Your task to perform on an android device: check android version Image 0: 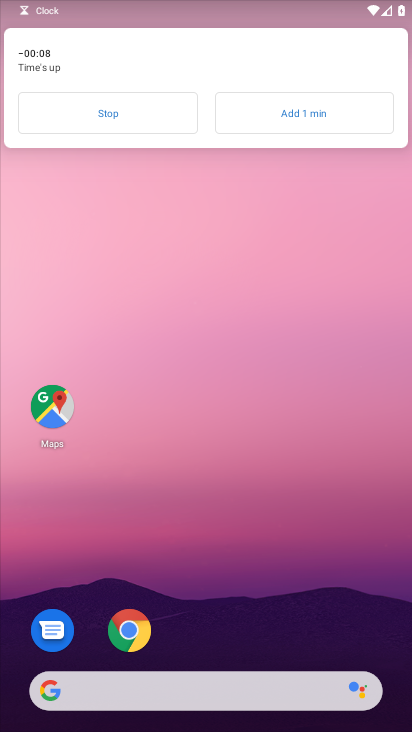
Step 0: drag from (182, 688) to (80, 16)
Your task to perform on an android device: check android version Image 1: 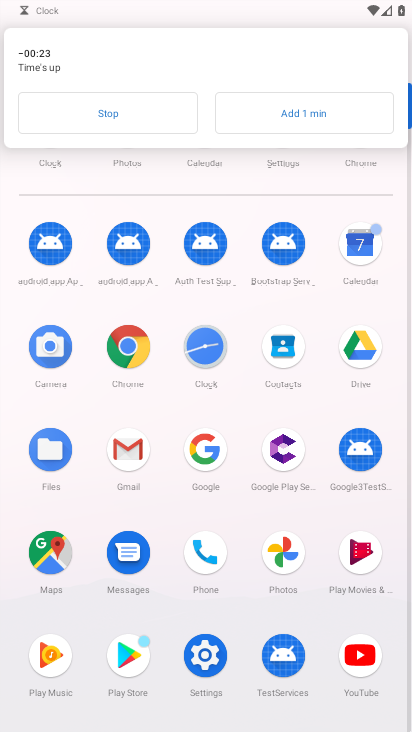
Step 1: click (214, 672)
Your task to perform on an android device: check android version Image 2: 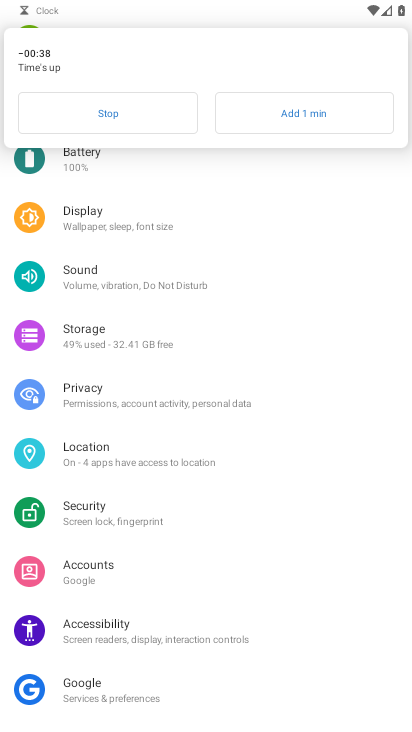
Step 2: drag from (164, 647) to (126, 7)
Your task to perform on an android device: check android version Image 3: 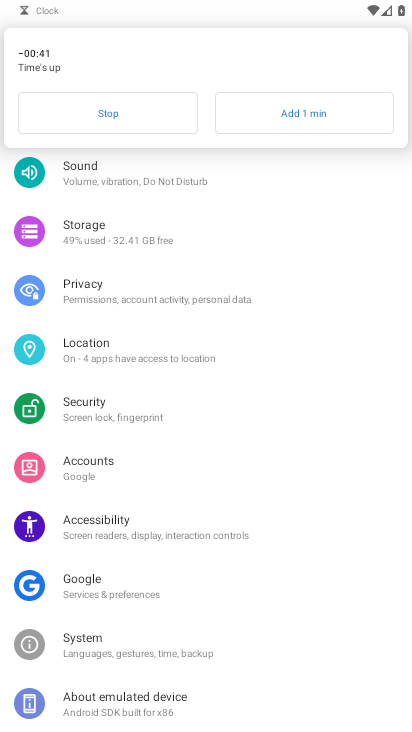
Step 3: click (88, 691)
Your task to perform on an android device: check android version Image 4: 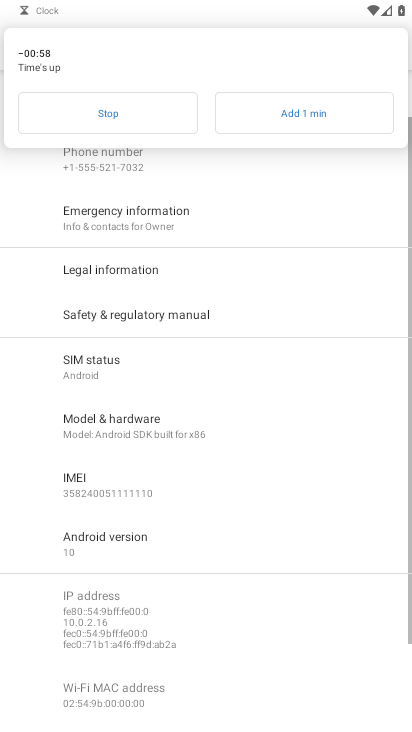
Step 4: click (101, 533)
Your task to perform on an android device: check android version Image 5: 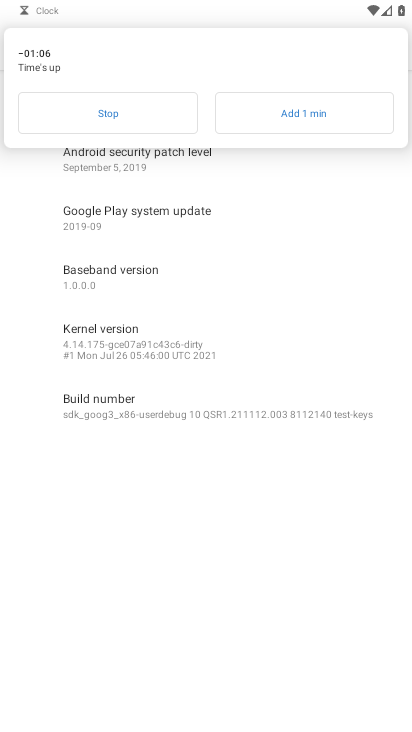
Step 5: click (131, 116)
Your task to perform on an android device: check android version Image 6: 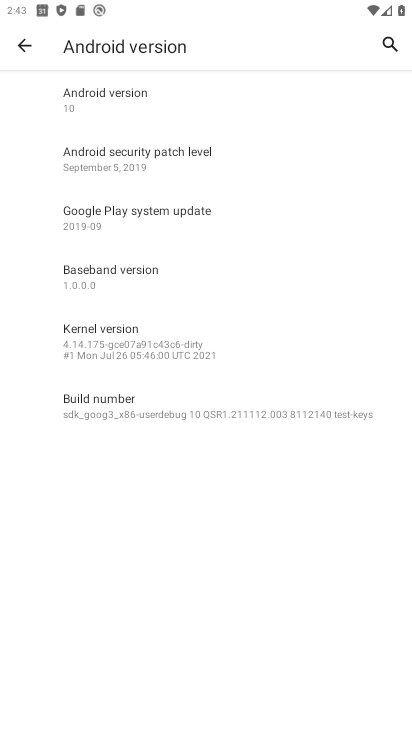
Step 6: task complete